Your task to perform on an android device: toggle javascript in the chrome app Image 0: 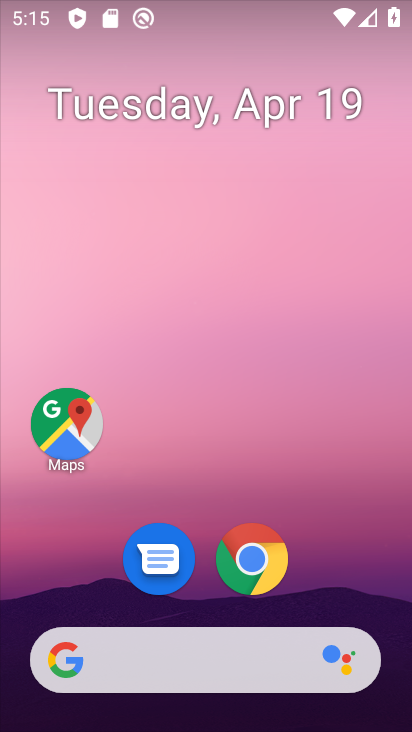
Step 0: click (274, 555)
Your task to perform on an android device: toggle javascript in the chrome app Image 1: 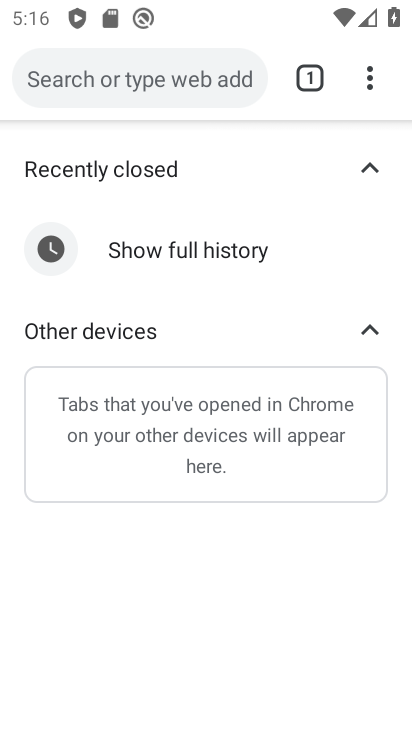
Step 1: click (379, 96)
Your task to perform on an android device: toggle javascript in the chrome app Image 2: 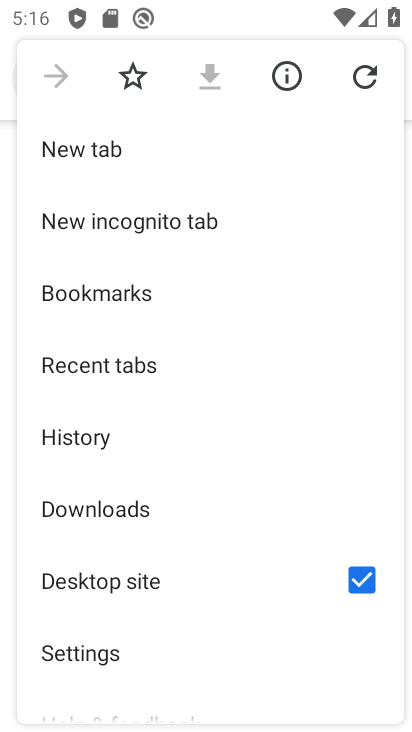
Step 2: click (145, 669)
Your task to perform on an android device: toggle javascript in the chrome app Image 3: 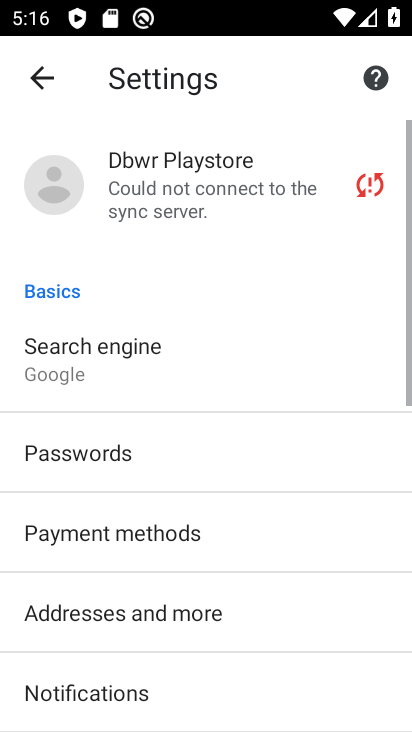
Step 3: drag from (245, 625) to (248, 434)
Your task to perform on an android device: toggle javascript in the chrome app Image 4: 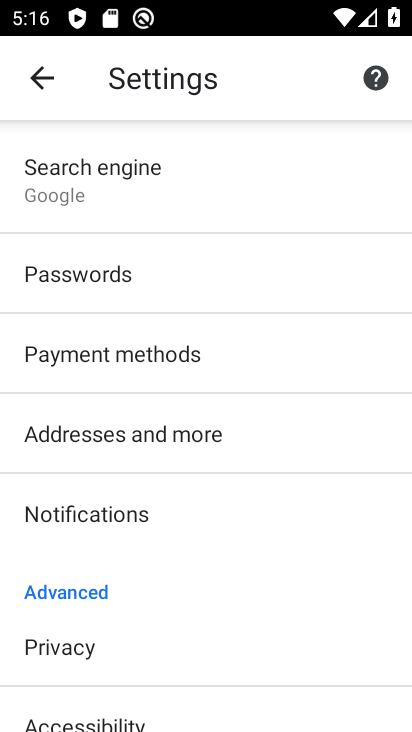
Step 4: drag from (188, 665) to (222, 273)
Your task to perform on an android device: toggle javascript in the chrome app Image 5: 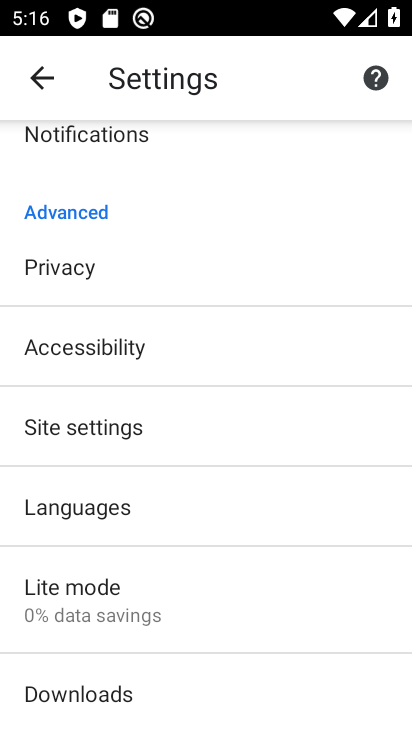
Step 5: click (234, 443)
Your task to perform on an android device: toggle javascript in the chrome app Image 6: 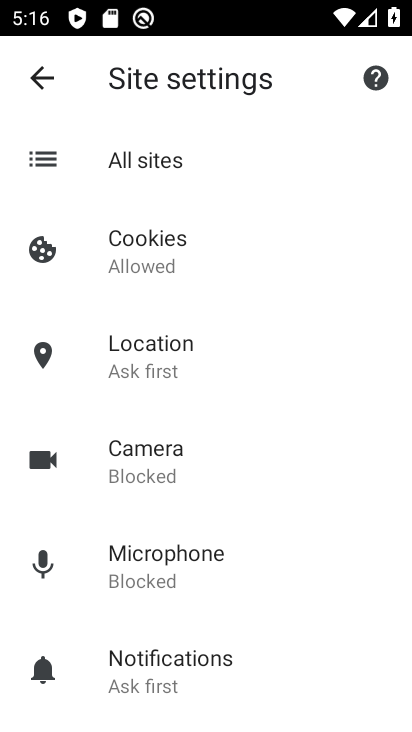
Step 6: drag from (244, 591) to (242, 267)
Your task to perform on an android device: toggle javascript in the chrome app Image 7: 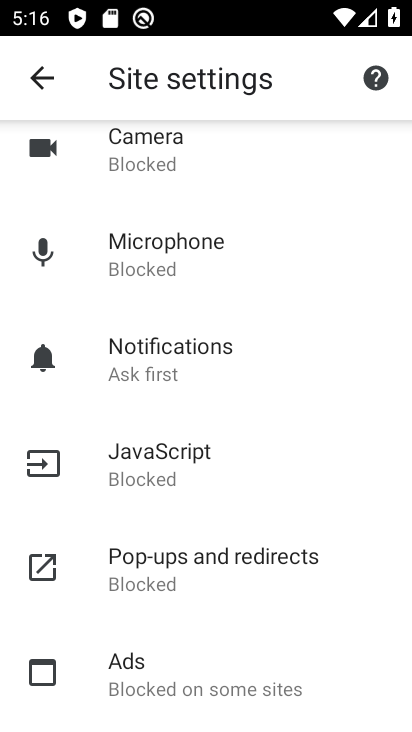
Step 7: click (238, 493)
Your task to perform on an android device: toggle javascript in the chrome app Image 8: 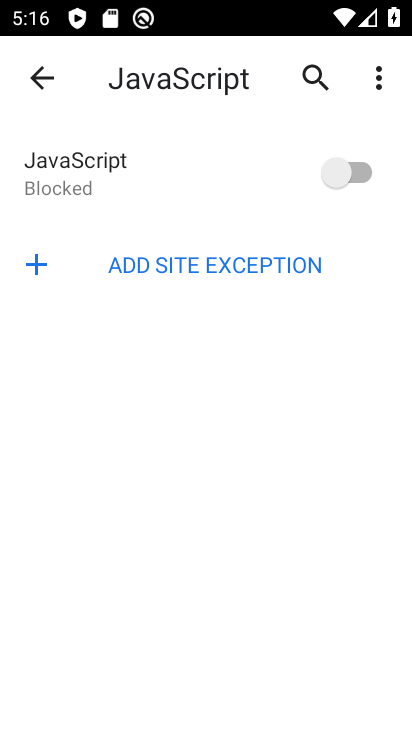
Step 8: click (351, 200)
Your task to perform on an android device: toggle javascript in the chrome app Image 9: 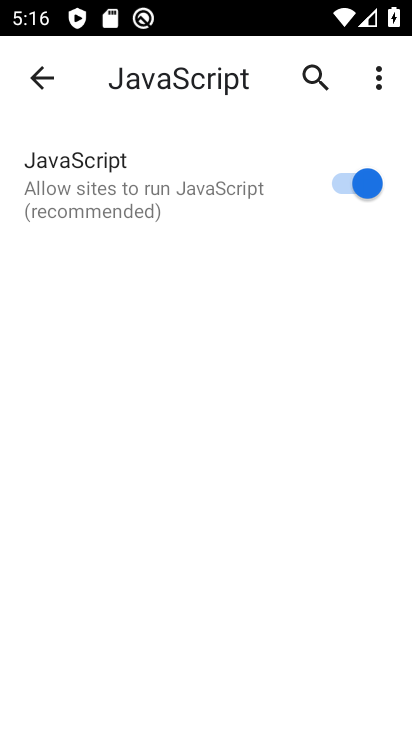
Step 9: task complete